Your task to perform on an android device: check android version Image 0: 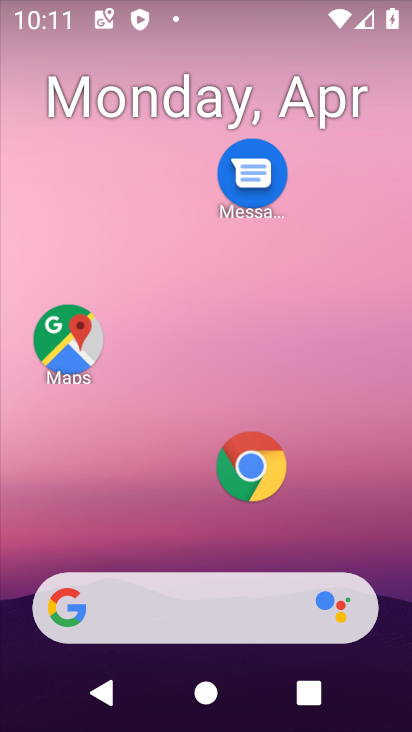
Step 0: drag from (150, 489) to (276, 12)
Your task to perform on an android device: check android version Image 1: 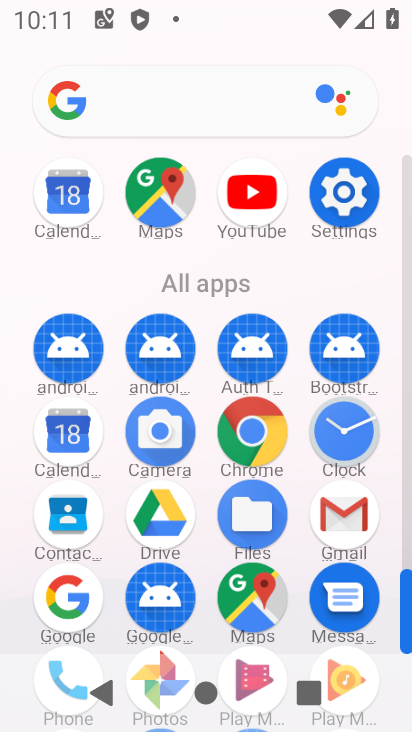
Step 1: click (343, 187)
Your task to perform on an android device: check android version Image 2: 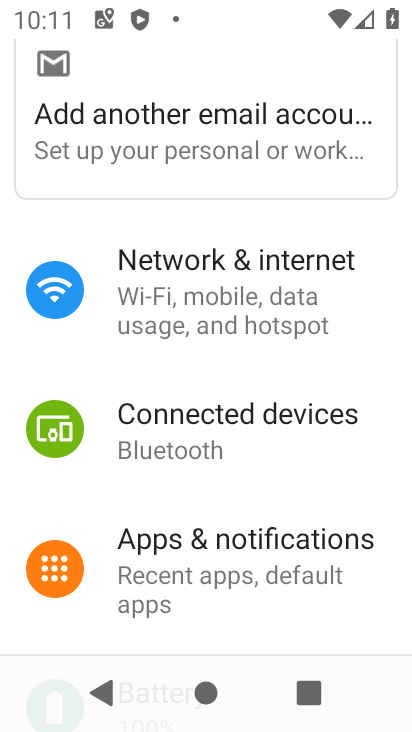
Step 2: drag from (203, 586) to (279, 153)
Your task to perform on an android device: check android version Image 3: 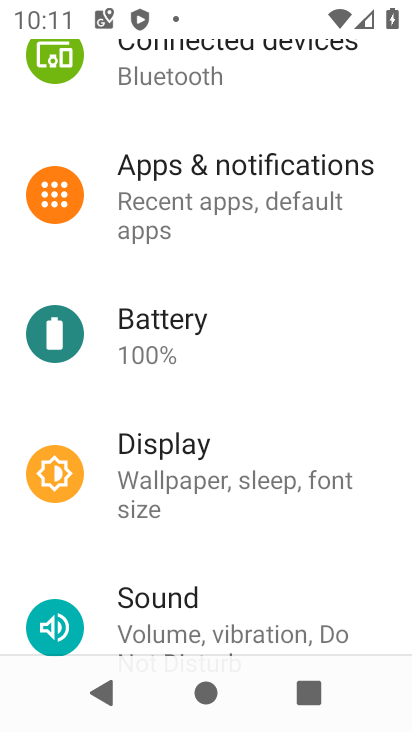
Step 3: drag from (236, 603) to (262, 56)
Your task to perform on an android device: check android version Image 4: 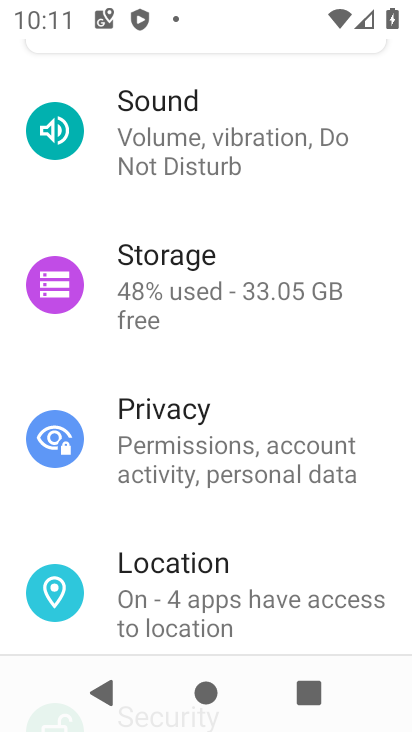
Step 4: drag from (250, 516) to (314, 15)
Your task to perform on an android device: check android version Image 5: 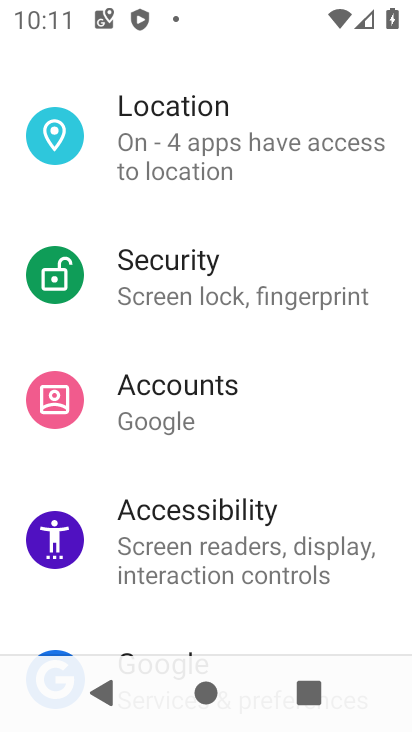
Step 5: drag from (248, 433) to (270, 22)
Your task to perform on an android device: check android version Image 6: 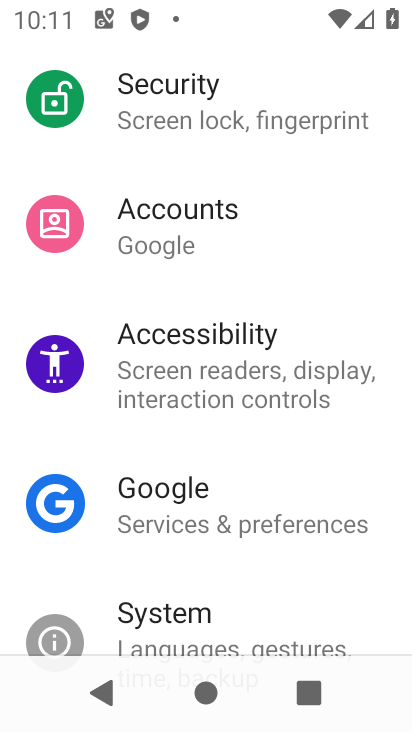
Step 6: drag from (252, 622) to (274, 144)
Your task to perform on an android device: check android version Image 7: 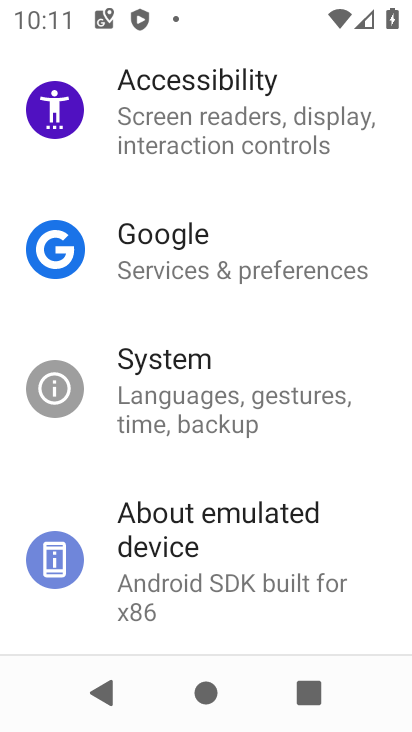
Step 7: click (214, 566)
Your task to perform on an android device: check android version Image 8: 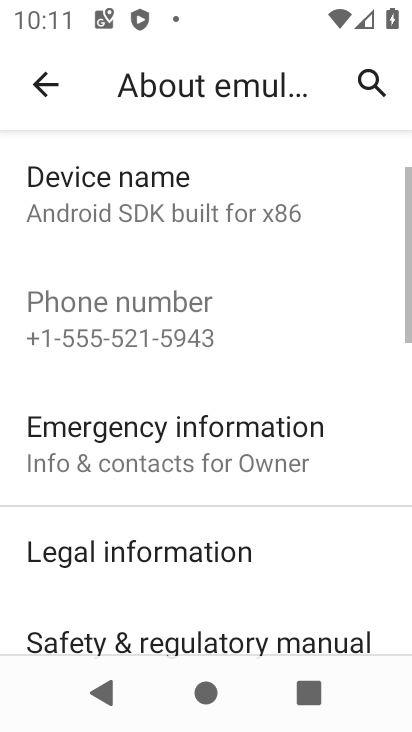
Step 8: drag from (151, 536) to (234, 205)
Your task to perform on an android device: check android version Image 9: 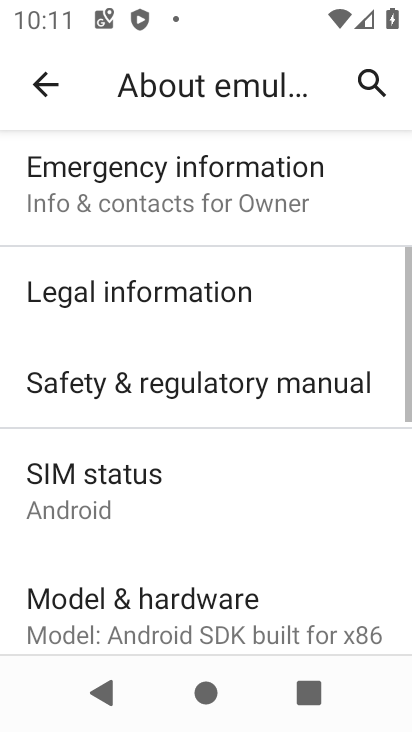
Step 9: drag from (183, 593) to (239, 204)
Your task to perform on an android device: check android version Image 10: 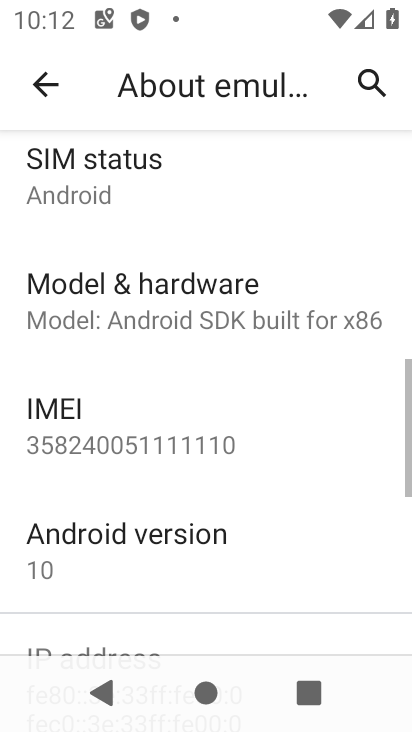
Step 10: click (157, 546)
Your task to perform on an android device: check android version Image 11: 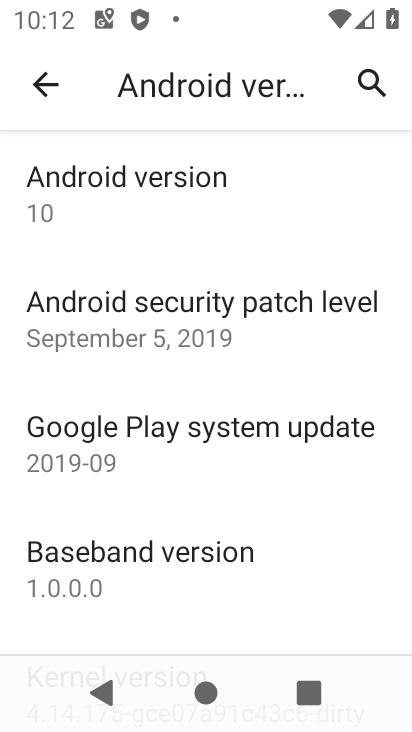
Step 11: click (134, 201)
Your task to perform on an android device: check android version Image 12: 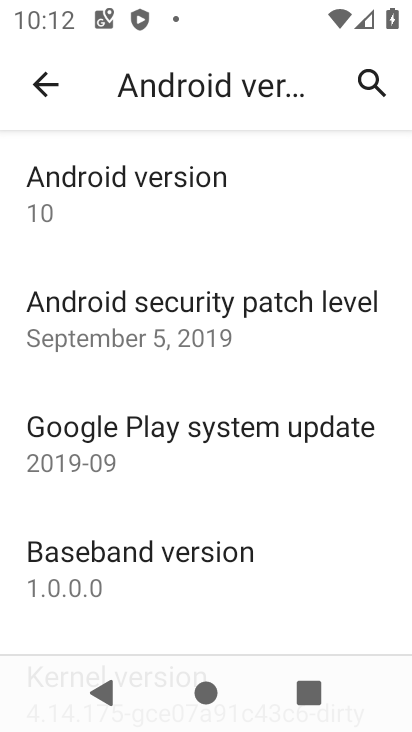
Step 12: click (97, 199)
Your task to perform on an android device: check android version Image 13: 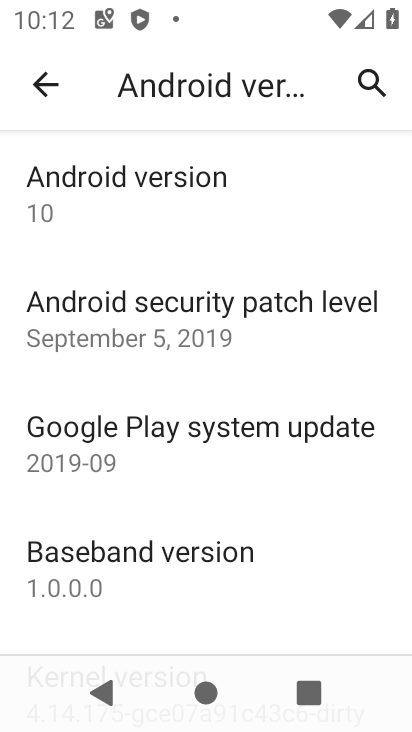
Step 13: click (55, 204)
Your task to perform on an android device: check android version Image 14: 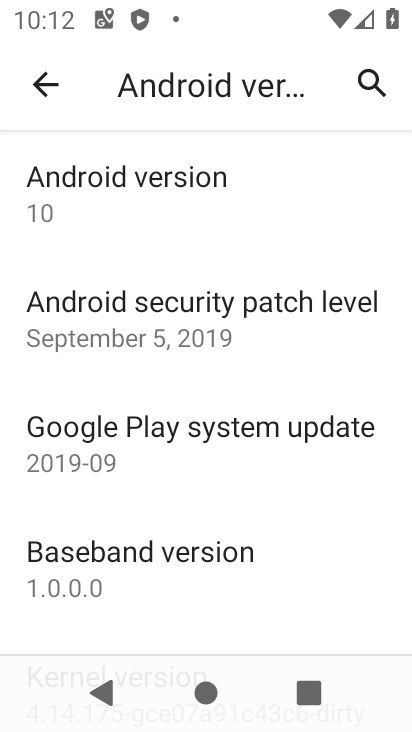
Step 14: click (55, 204)
Your task to perform on an android device: check android version Image 15: 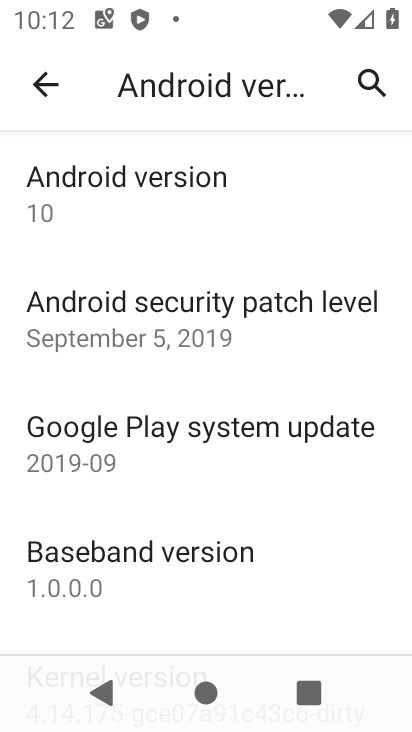
Step 15: task complete